Your task to perform on an android device: install app "Google Keep" Image 0: 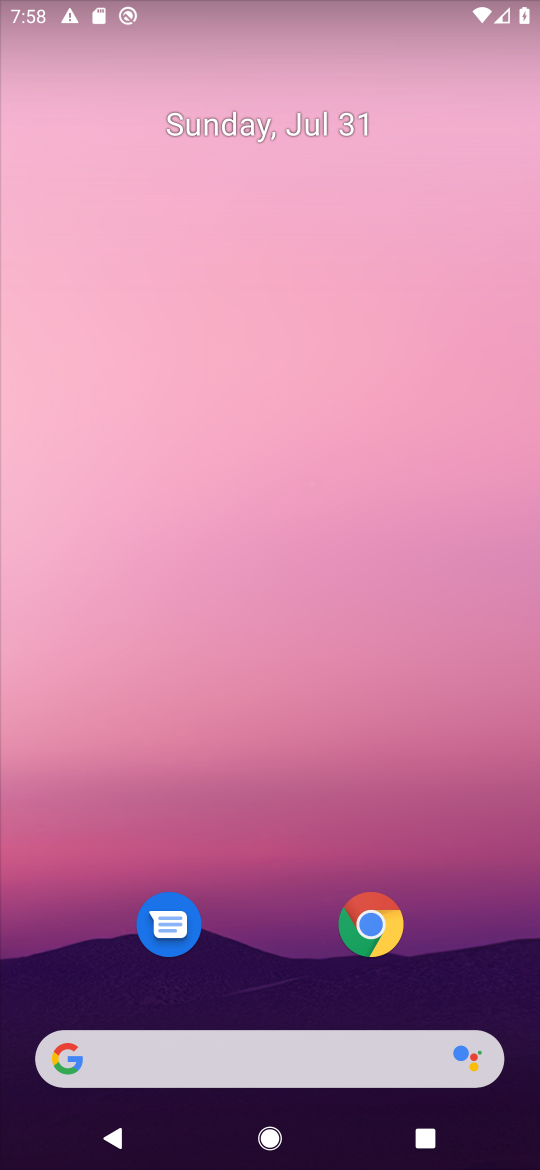
Step 0: press home button
Your task to perform on an android device: install app "Google Keep" Image 1: 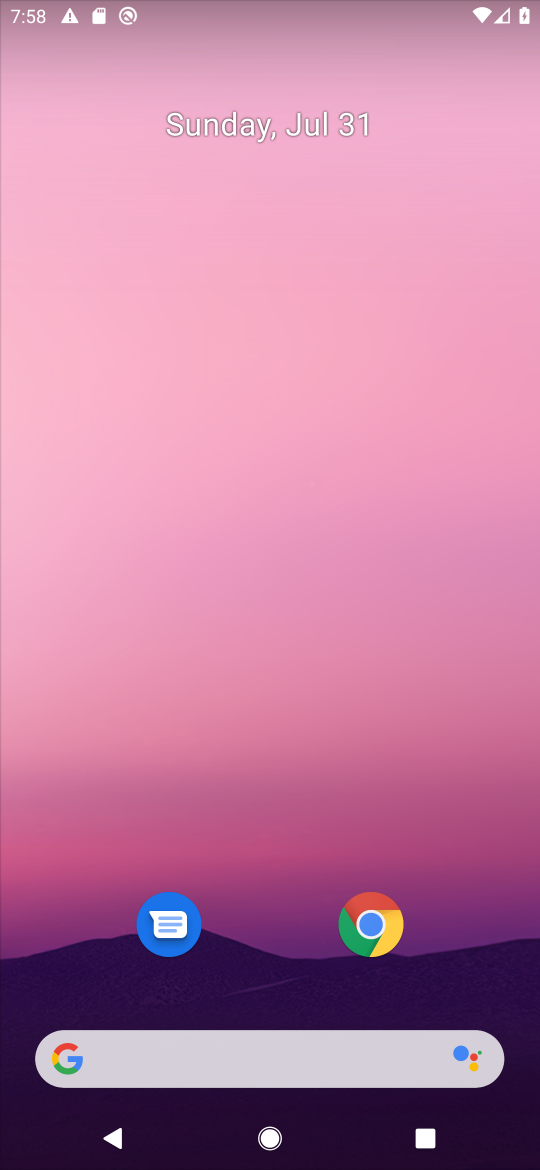
Step 1: drag from (325, 751) to (335, 454)
Your task to perform on an android device: install app "Google Keep" Image 2: 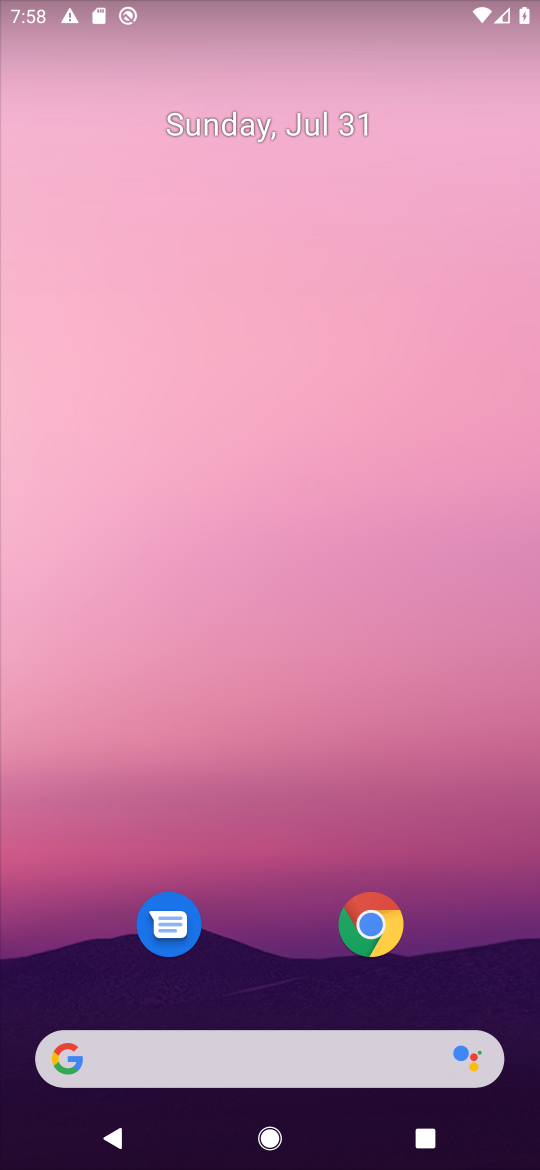
Step 2: drag from (229, 923) to (229, 356)
Your task to perform on an android device: install app "Google Keep" Image 3: 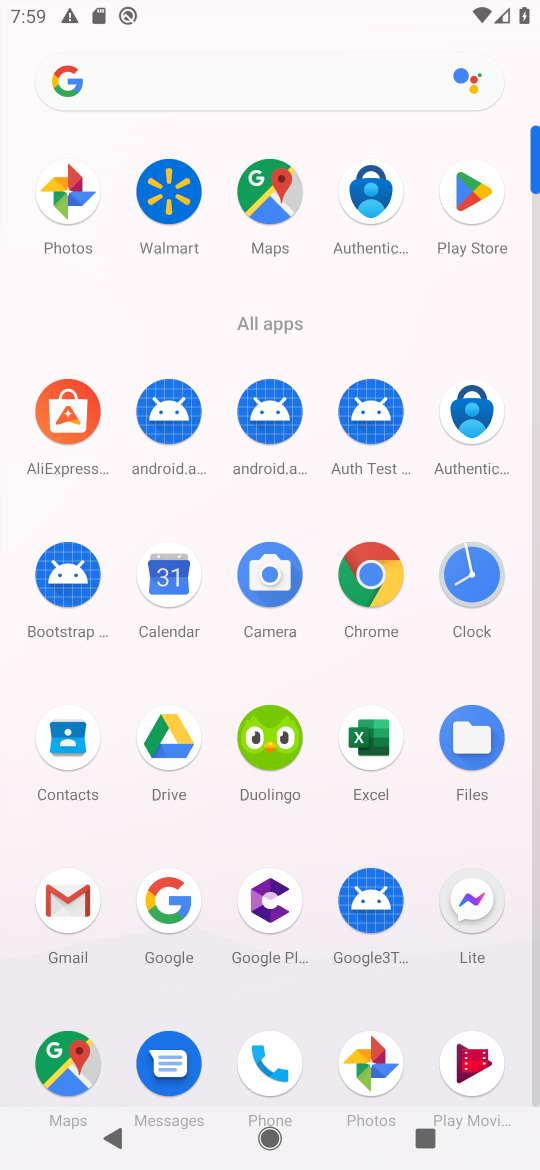
Step 3: click (471, 196)
Your task to perform on an android device: install app "Google Keep" Image 4: 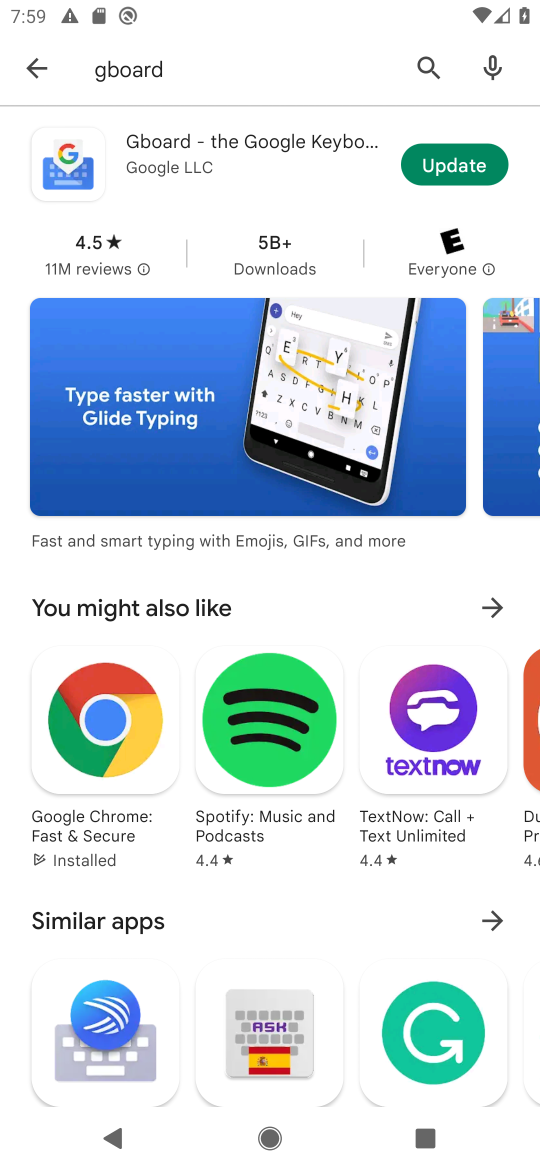
Step 4: click (30, 68)
Your task to perform on an android device: install app "Google Keep" Image 5: 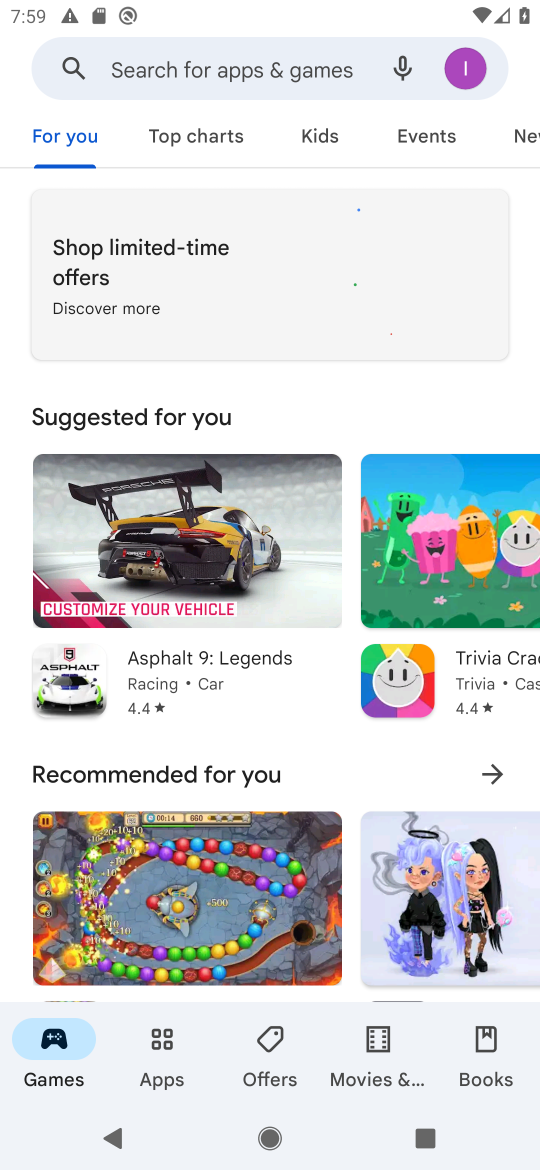
Step 5: click (125, 74)
Your task to perform on an android device: install app "Google Keep" Image 6: 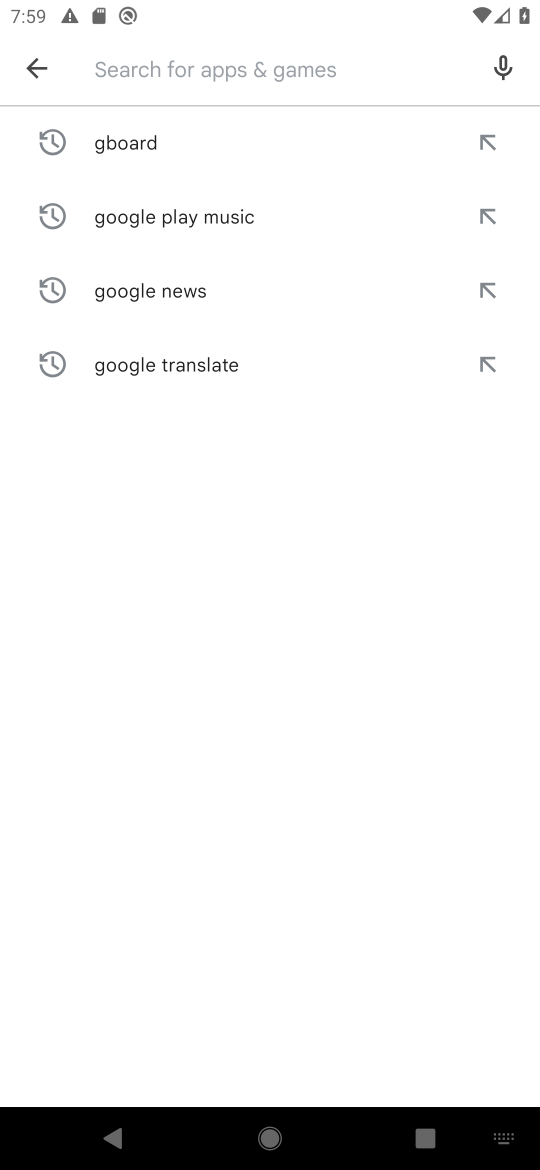
Step 6: type "Google Keep"
Your task to perform on an android device: install app "Google Keep" Image 7: 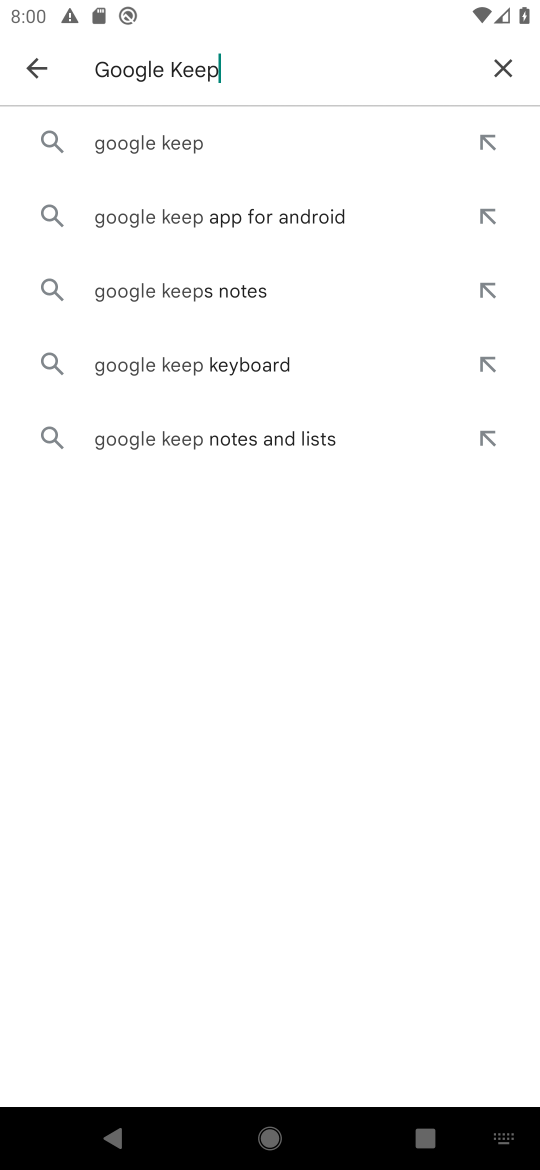
Step 7: click (206, 142)
Your task to perform on an android device: install app "Google Keep" Image 8: 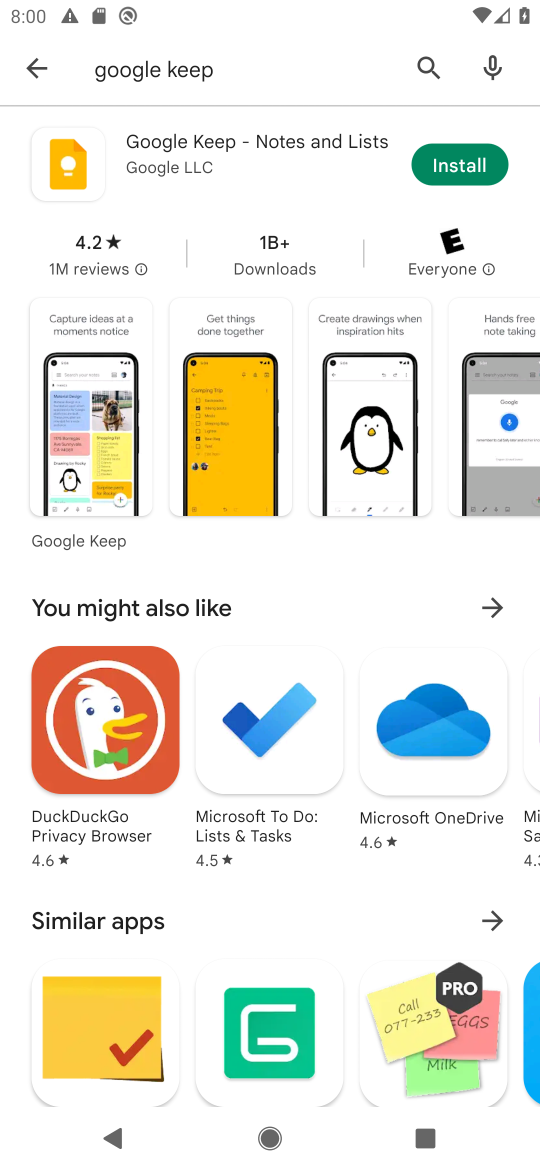
Step 8: click (441, 172)
Your task to perform on an android device: install app "Google Keep" Image 9: 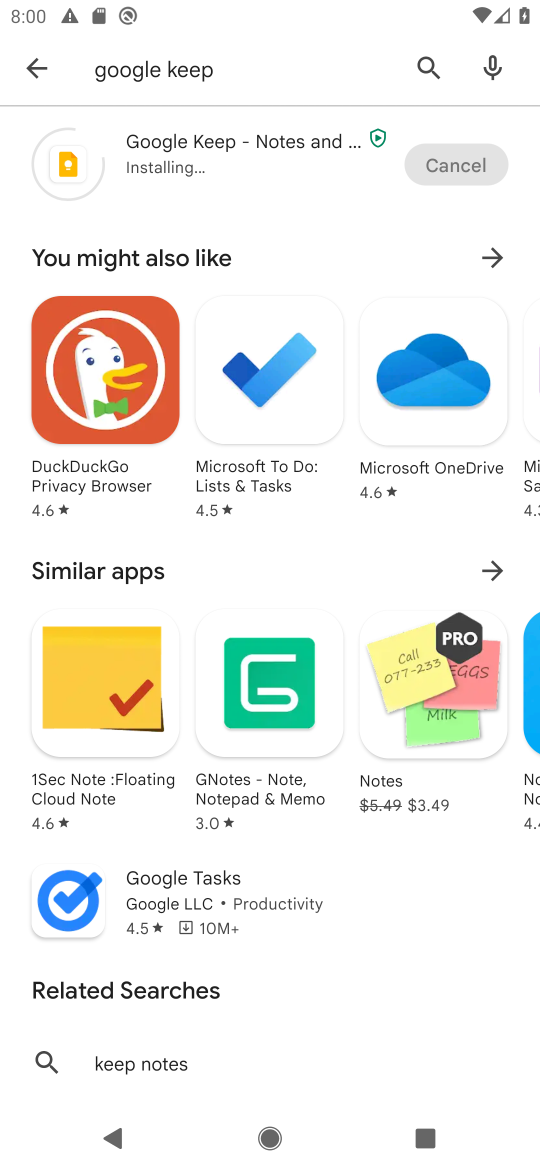
Step 9: task complete